Your task to perform on an android device: star an email in the gmail app Image 0: 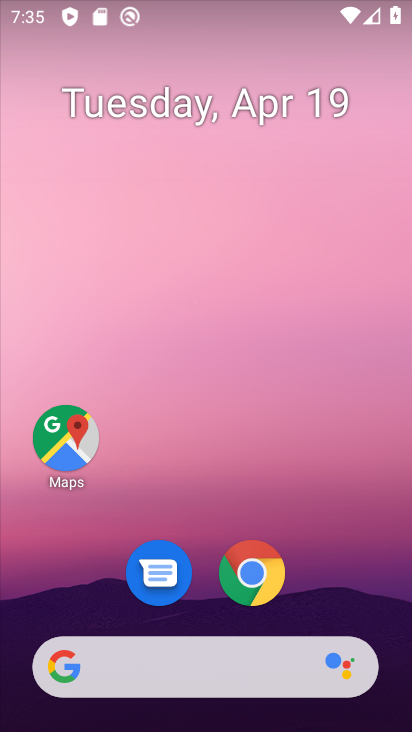
Step 0: drag from (364, 591) to (298, 129)
Your task to perform on an android device: star an email in the gmail app Image 1: 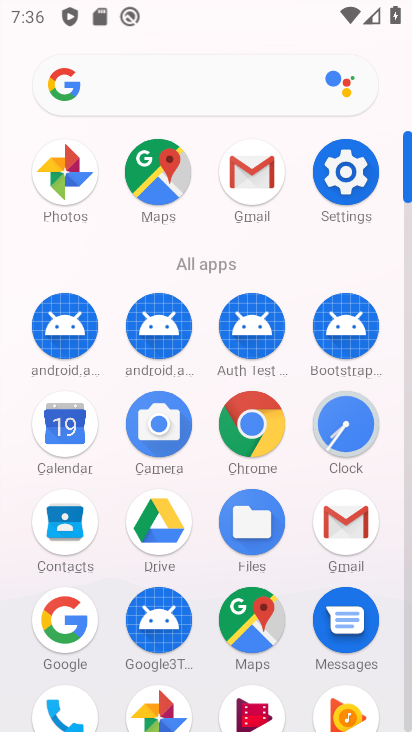
Step 1: click (258, 164)
Your task to perform on an android device: star an email in the gmail app Image 2: 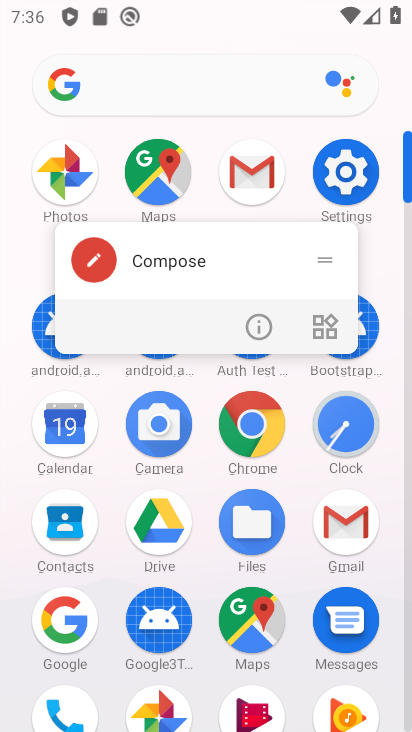
Step 2: click (258, 165)
Your task to perform on an android device: star an email in the gmail app Image 3: 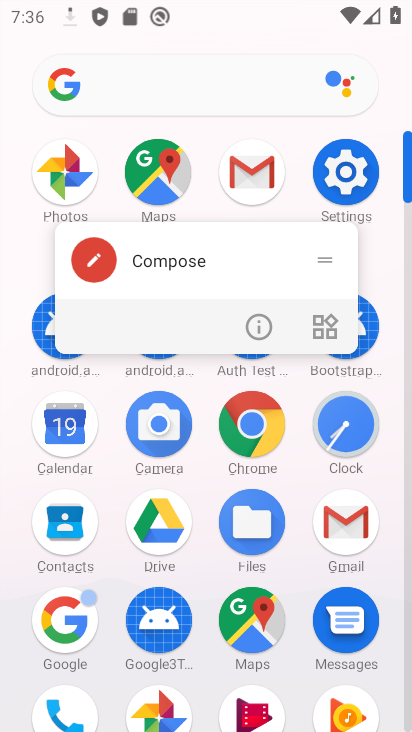
Step 3: click (258, 165)
Your task to perform on an android device: star an email in the gmail app Image 4: 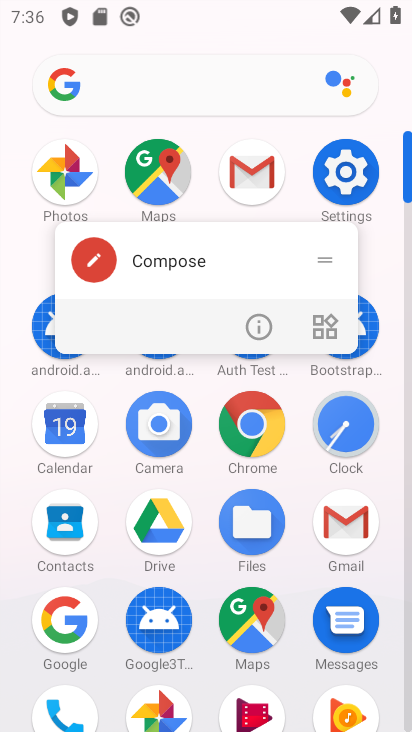
Step 4: click (258, 165)
Your task to perform on an android device: star an email in the gmail app Image 5: 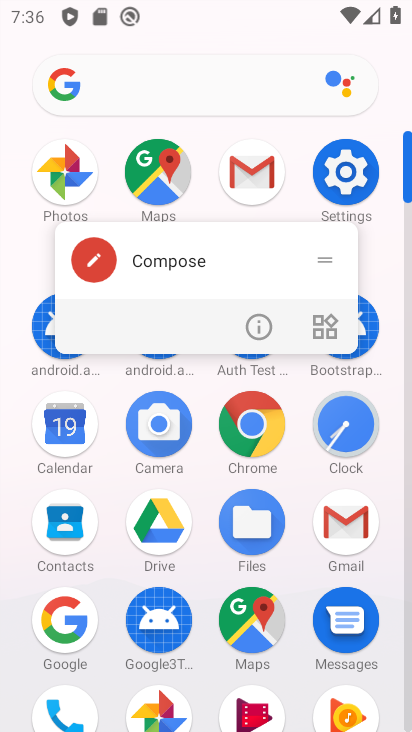
Step 5: click (251, 169)
Your task to perform on an android device: star an email in the gmail app Image 6: 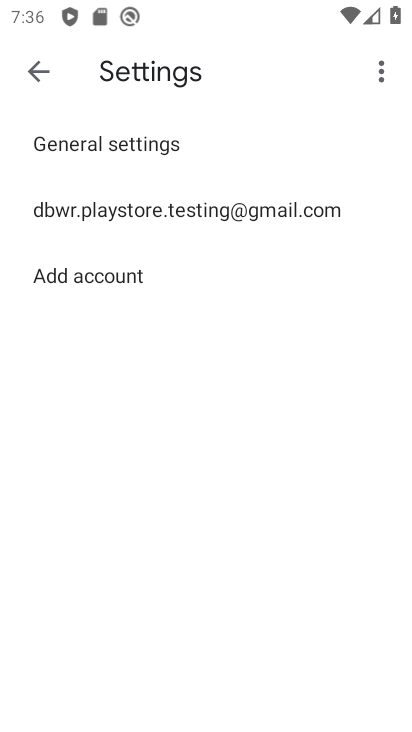
Step 6: click (30, 71)
Your task to perform on an android device: star an email in the gmail app Image 7: 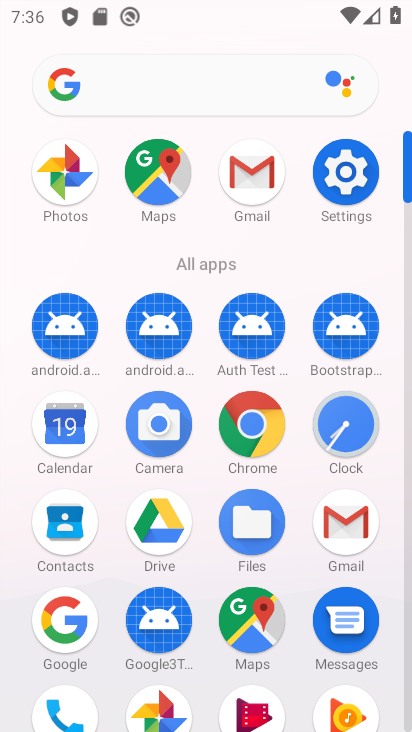
Step 7: click (256, 181)
Your task to perform on an android device: star an email in the gmail app Image 8: 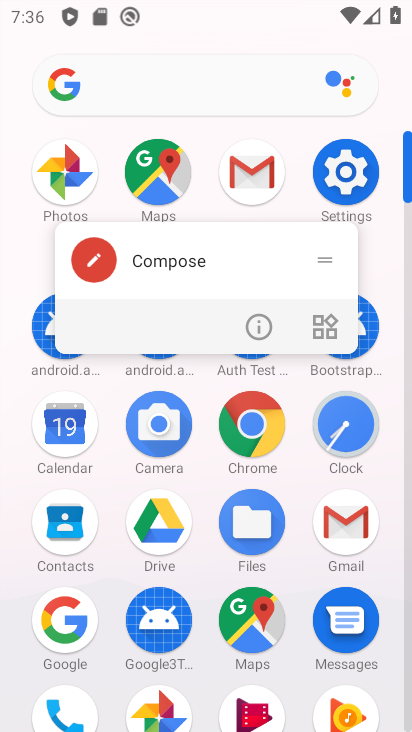
Step 8: click (256, 181)
Your task to perform on an android device: star an email in the gmail app Image 9: 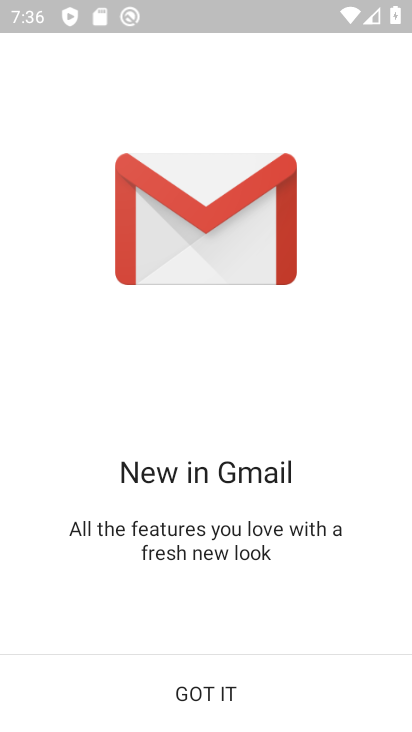
Step 9: click (205, 678)
Your task to perform on an android device: star an email in the gmail app Image 10: 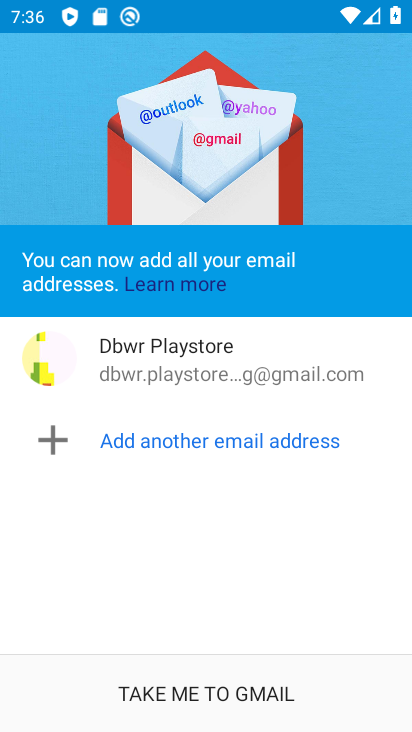
Step 10: click (257, 716)
Your task to perform on an android device: star an email in the gmail app Image 11: 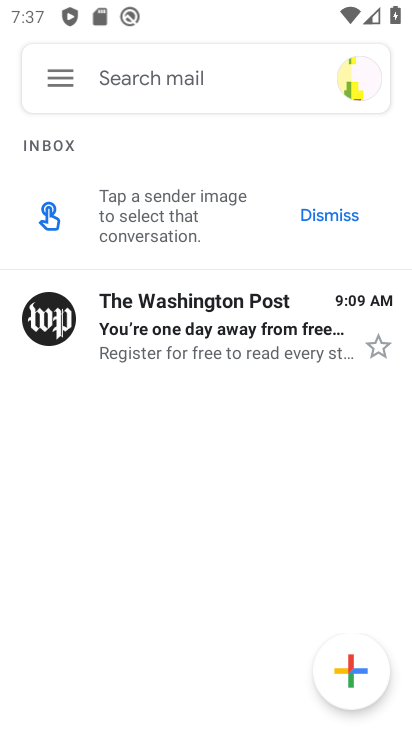
Step 11: click (375, 349)
Your task to perform on an android device: star an email in the gmail app Image 12: 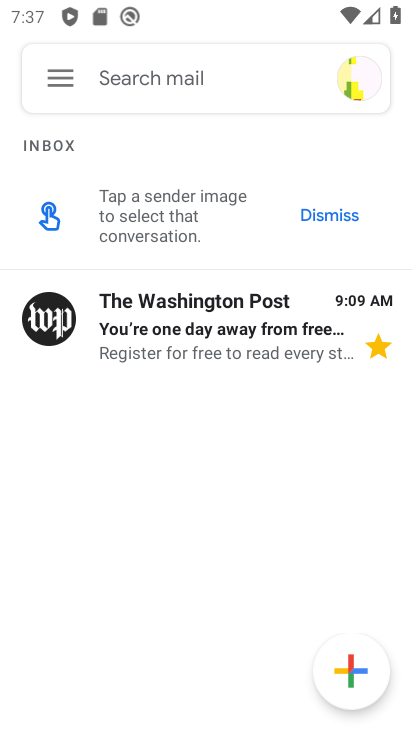
Step 12: task complete